Your task to perform on an android device: Is it going to rain tomorrow? Image 0: 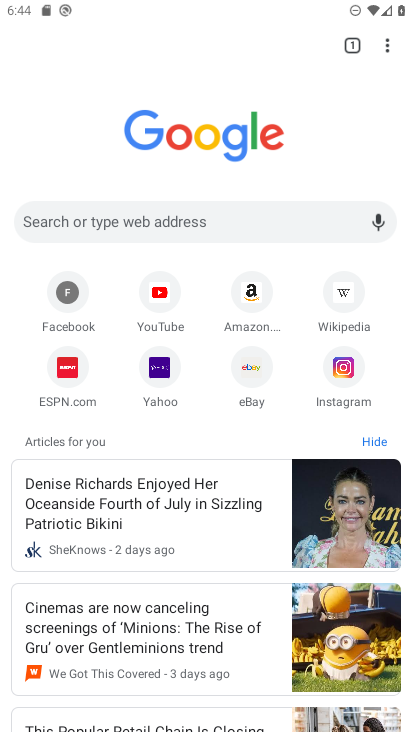
Step 0: press home button
Your task to perform on an android device: Is it going to rain tomorrow? Image 1: 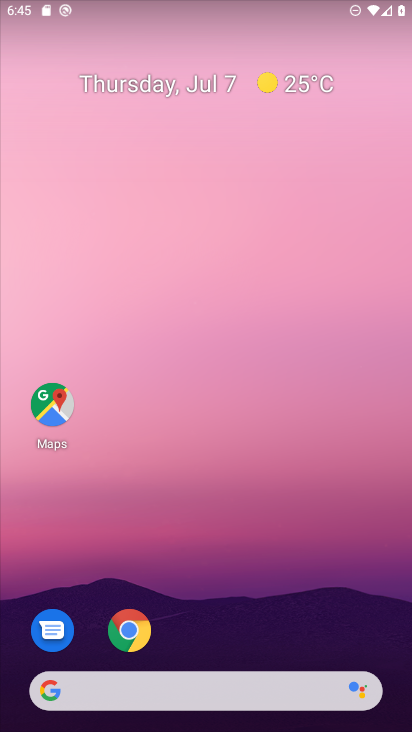
Step 1: click (193, 679)
Your task to perform on an android device: Is it going to rain tomorrow? Image 2: 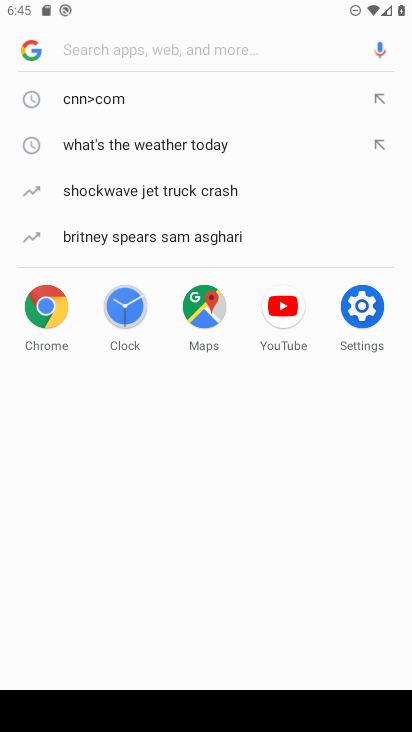
Step 2: type "is it going to rain tomorrow"
Your task to perform on an android device: Is it going to rain tomorrow? Image 3: 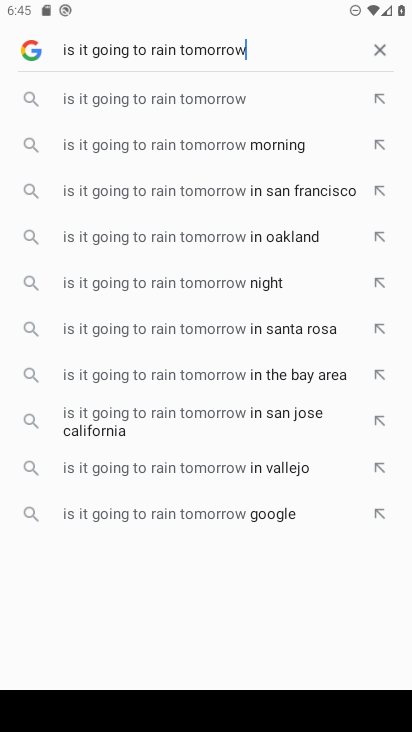
Step 3: click (170, 93)
Your task to perform on an android device: Is it going to rain tomorrow? Image 4: 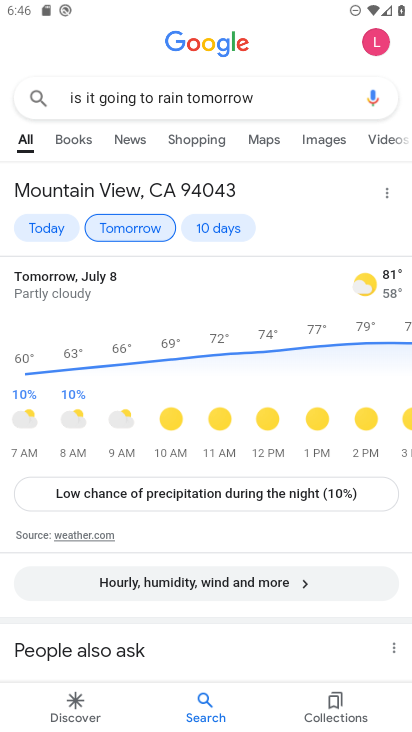
Step 4: task complete